Your task to perform on an android device: stop showing notifications on the lock screen Image 0: 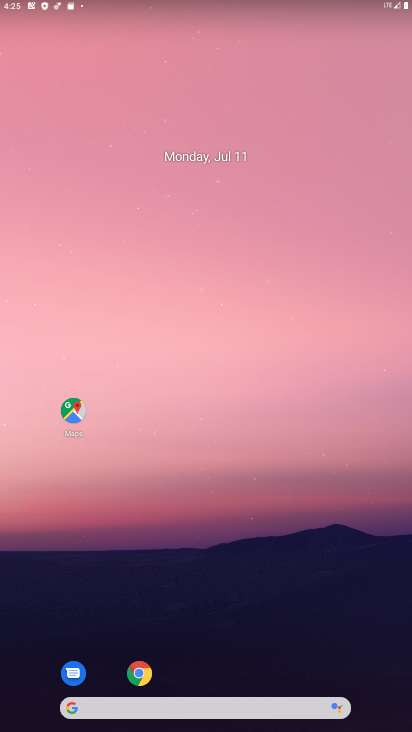
Step 0: drag from (330, 598) to (251, 81)
Your task to perform on an android device: stop showing notifications on the lock screen Image 1: 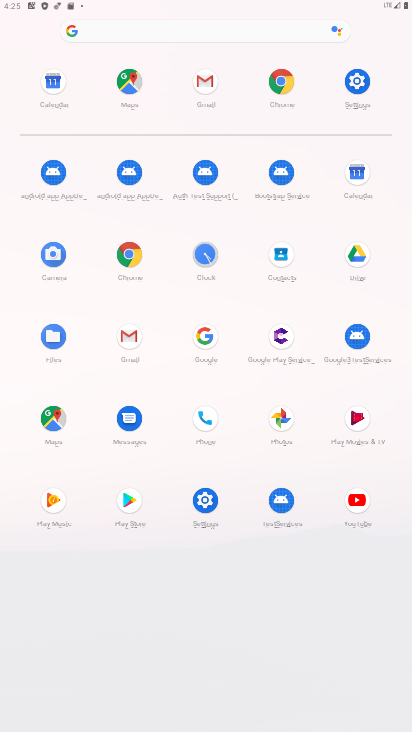
Step 1: click (359, 75)
Your task to perform on an android device: stop showing notifications on the lock screen Image 2: 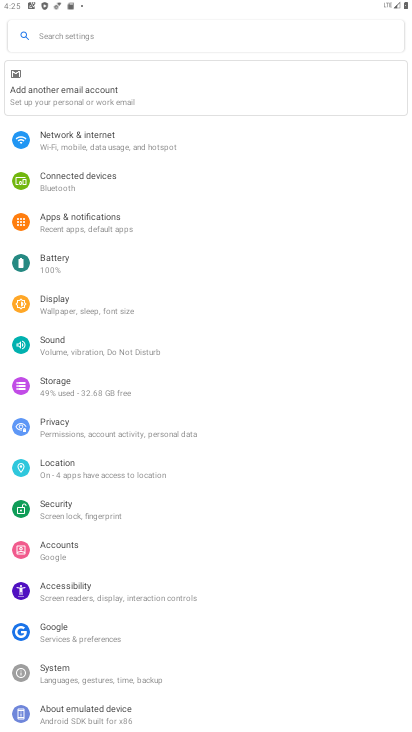
Step 2: click (64, 219)
Your task to perform on an android device: stop showing notifications on the lock screen Image 3: 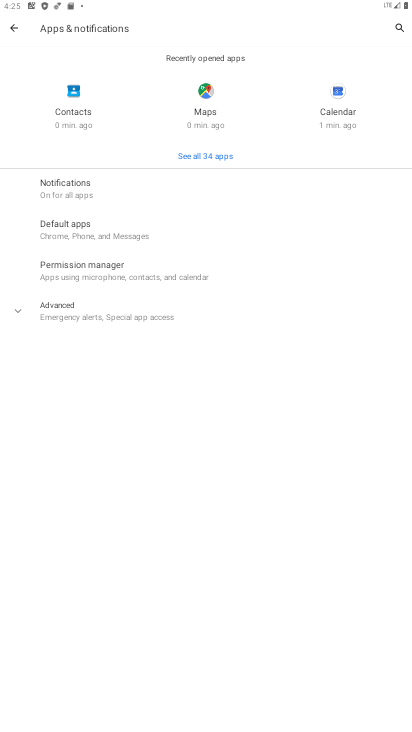
Step 3: click (77, 190)
Your task to perform on an android device: stop showing notifications on the lock screen Image 4: 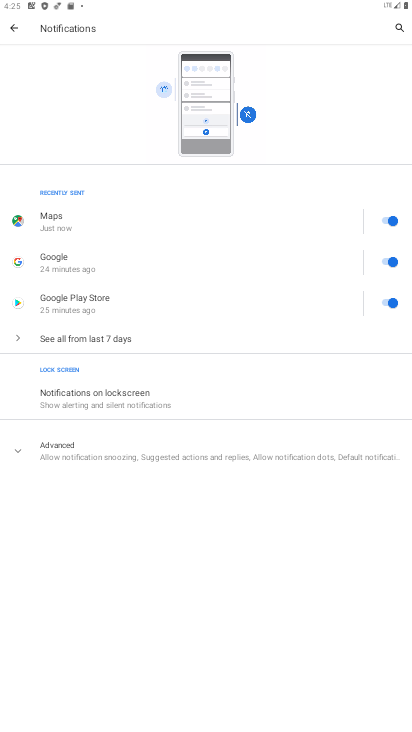
Step 4: click (112, 399)
Your task to perform on an android device: stop showing notifications on the lock screen Image 5: 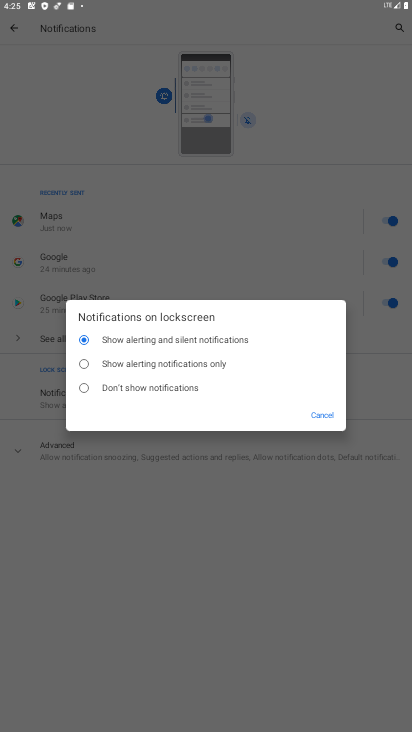
Step 5: click (121, 388)
Your task to perform on an android device: stop showing notifications on the lock screen Image 6: 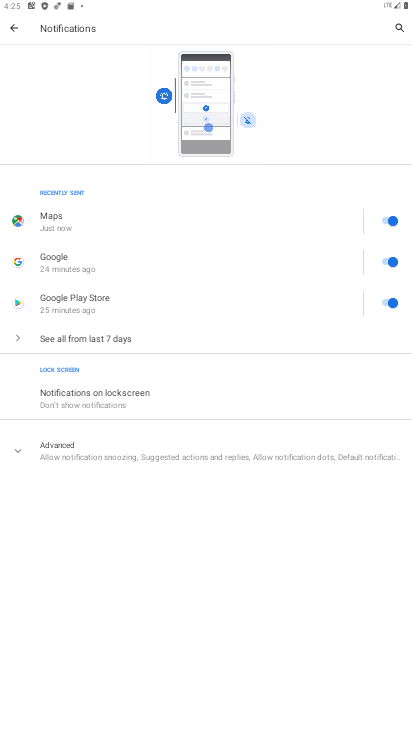
Step 6: task complete